Your task to perform on an android device: When is my next appointment? Image 0: 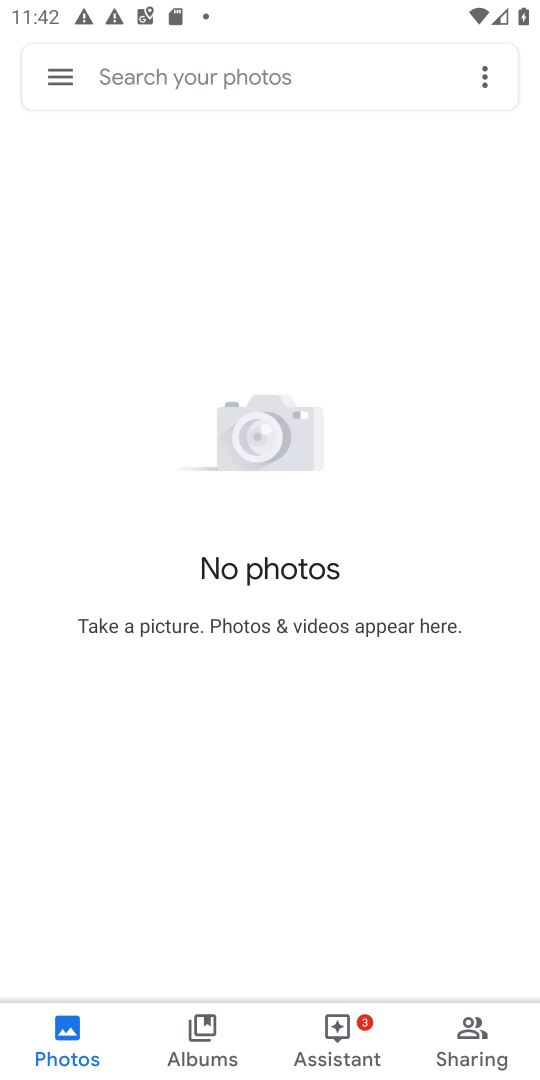
Step 0: press home button
Your task to perform on an android device: When is my next appointment? Image 1: 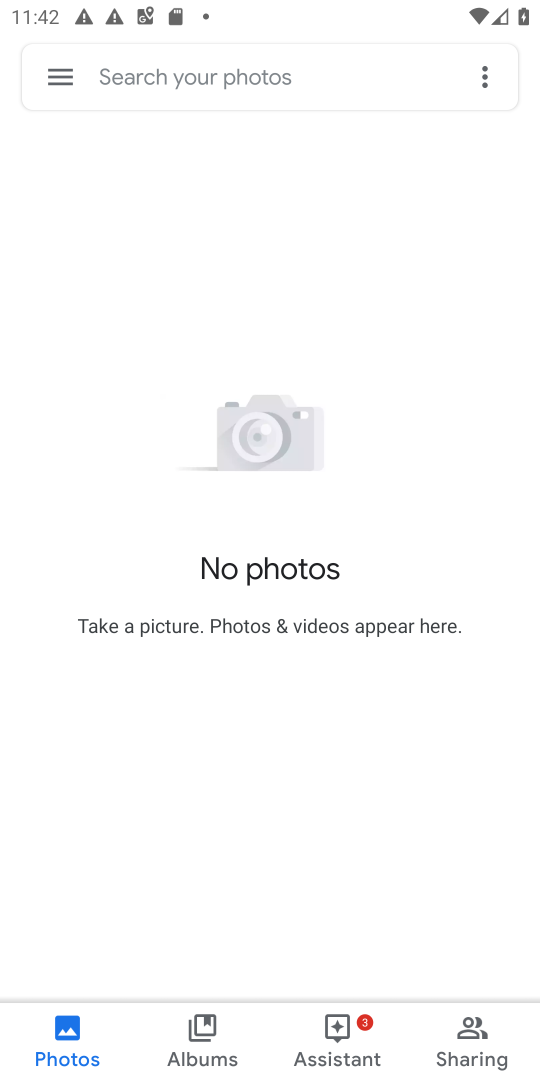
Step 1: press home button
Your task to perform on an android device: When is my next appointment? Image 2: 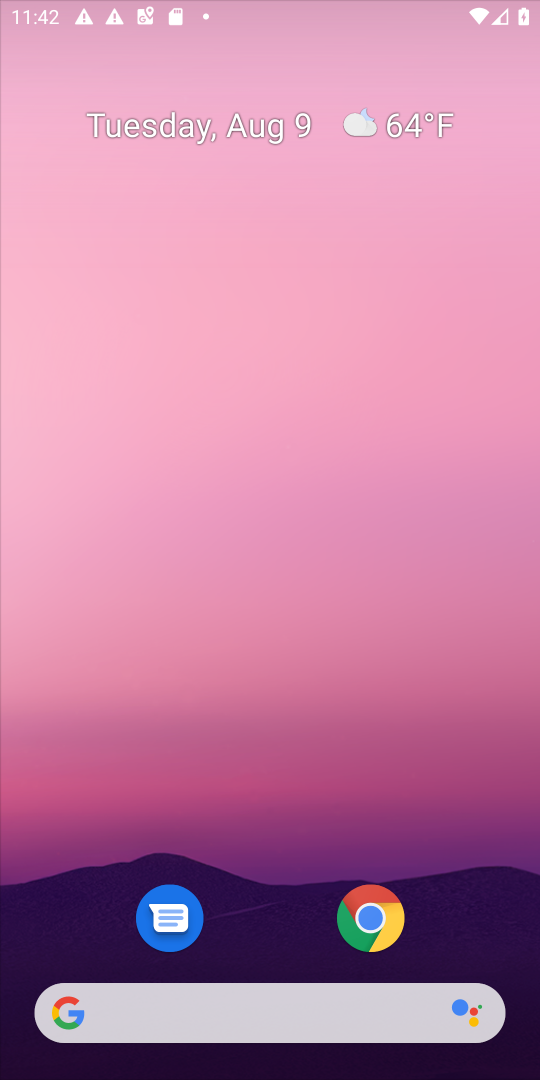
Step 2: press home button
Your task to perform on an android device: When is my next appointment? Image 3: 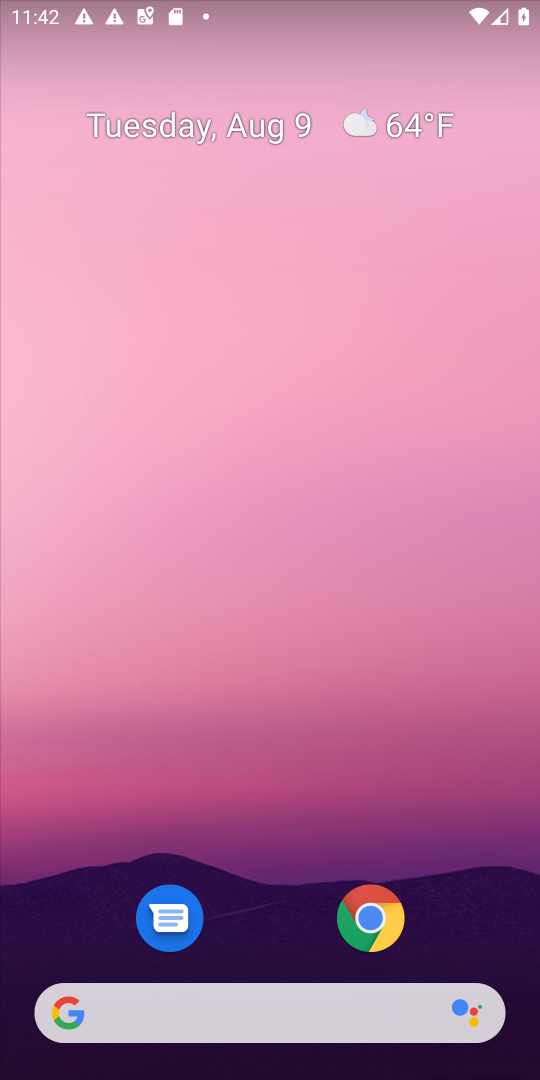
Step 3: drag from (236, 916) to (443, 321)
Your task to perform on an android device: When is my next appointment? Image 4: 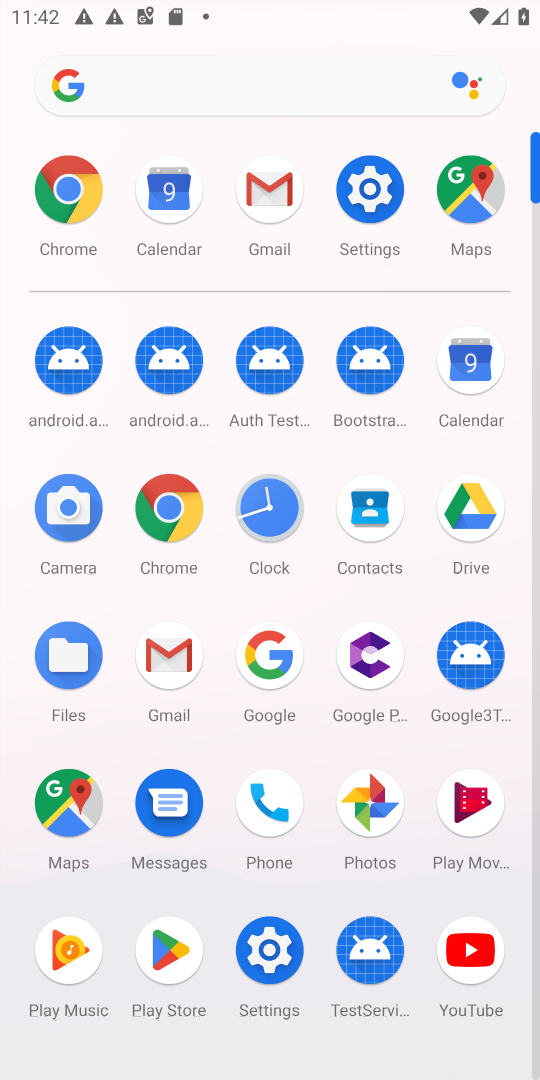
Step 4: click (477, 368)
Your task to perform on an android device: When is my next appointment? Image 5: 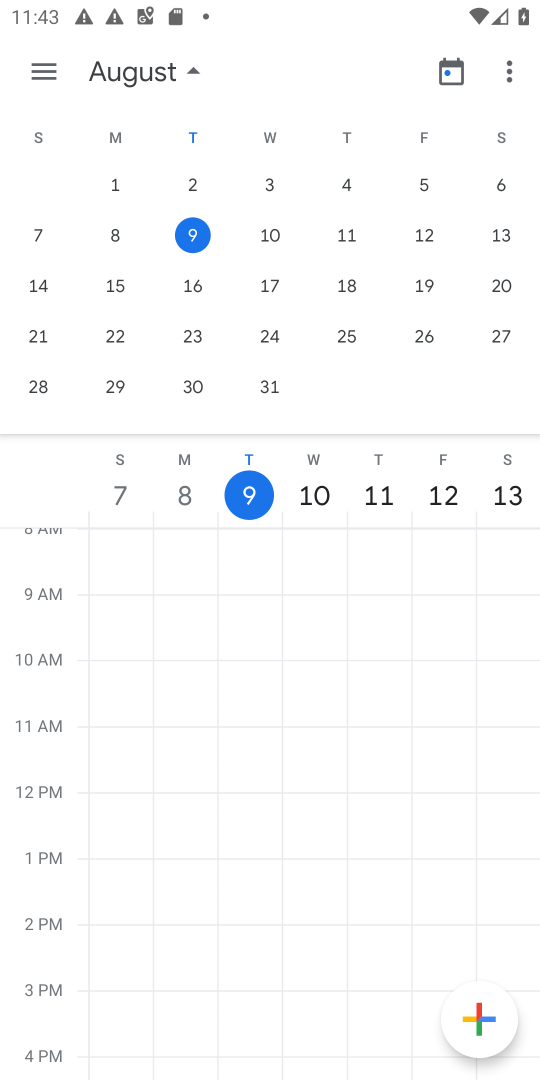
Step 5: task complete